Your task to perform on an android device: Go to Google maps Image 0: 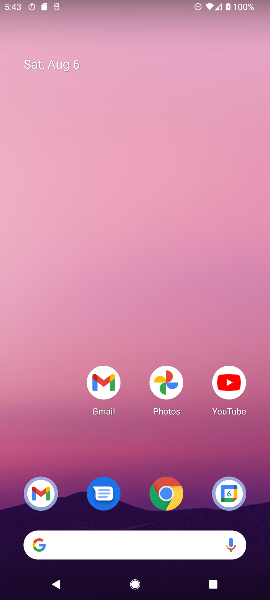
Step 0: drag from (163, 576) to (93, 77)
Your task to perform on an android device: Go to Google maps Image 1: 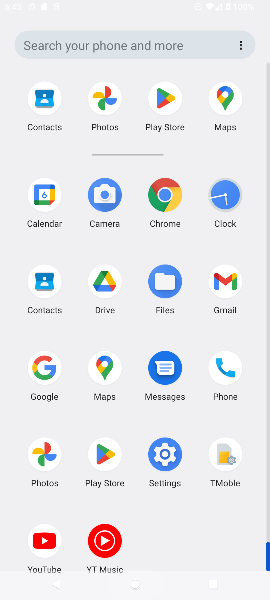
Step 1: drag from (173, 455) to (174, 160)
Your task to perform on an android device: Go to Google maps Image 2: 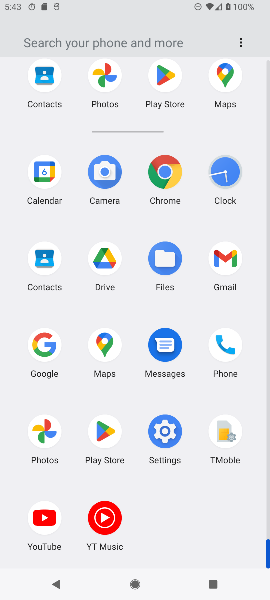
Step 2: click (107, 350)
Your task to perform on an android device: Go to Google maps Image 3: 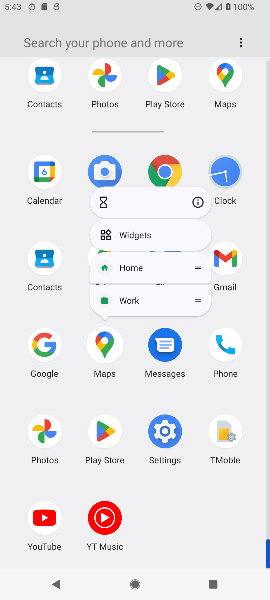
Step 3: click (107, 351)
Your task to perform on an android device: Go to Google maps Image 4: 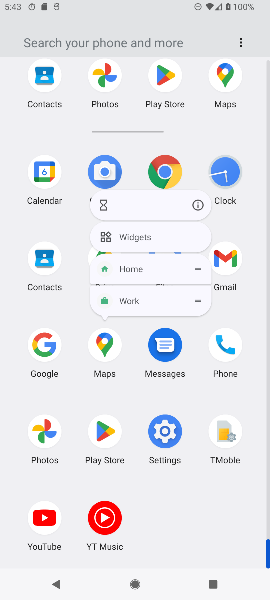
Step 4: click (107, 351)
Your task to perform on an android device: Go to Google maps Image 5: 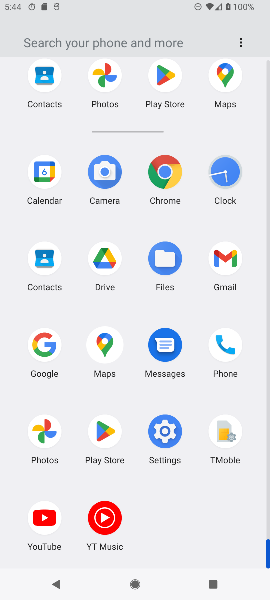
Step 5: click (104, 352)
Your task to perform on an android device: Go to Google maps Image 6: 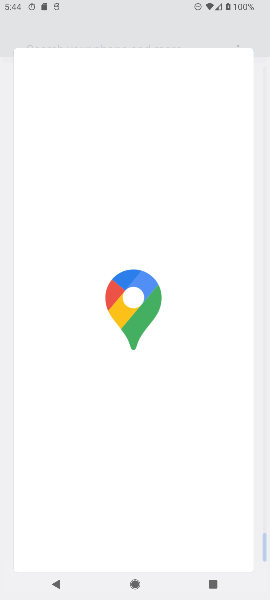
Step 6: click (106, 354)
Your task to perform on an android device: Go to Google maps Image 7: 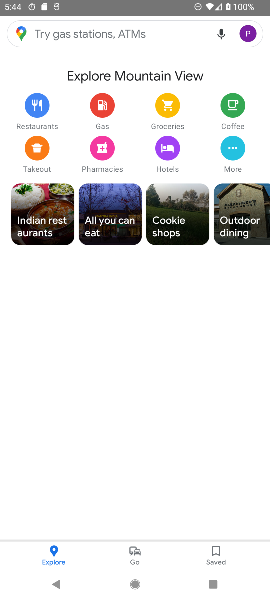
Step 7: task complete